Your task to perform on an android device: make emails show in primary in the gmail app Image 0: 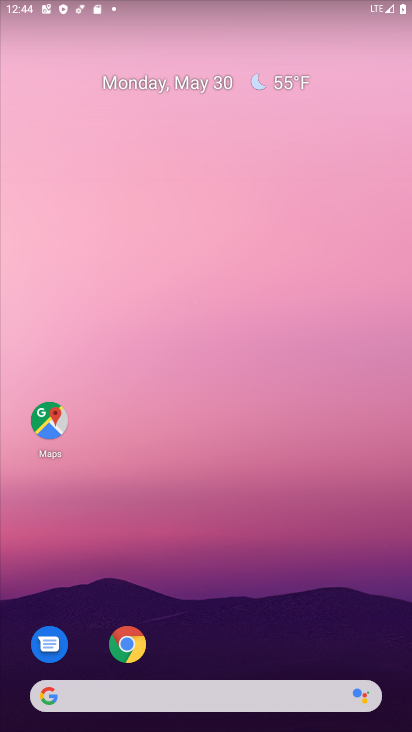
Step 0: drag from (270, 621) to (241, 188)
Your task to perform on an android device: make emails show in primary in the gmail app Image 1: 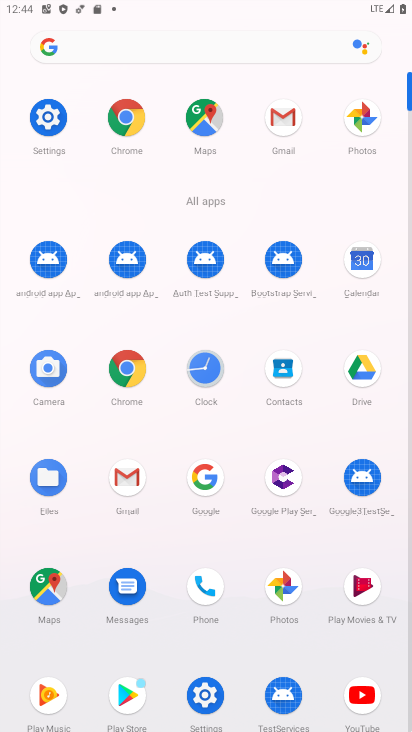
Step 1: click (287, 138)
Your task to perform on an android device: make emails show in primary in the gmail app Image 2: 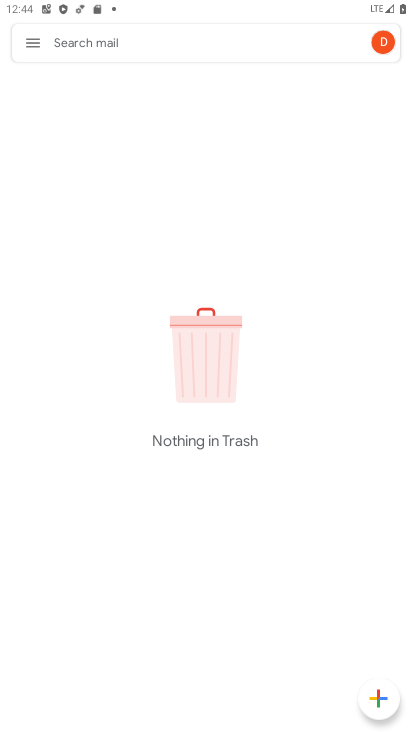
Step 2: click (35, 43)
Your task to perform on an android device: make emails show in primary in the gmail app Image 3: 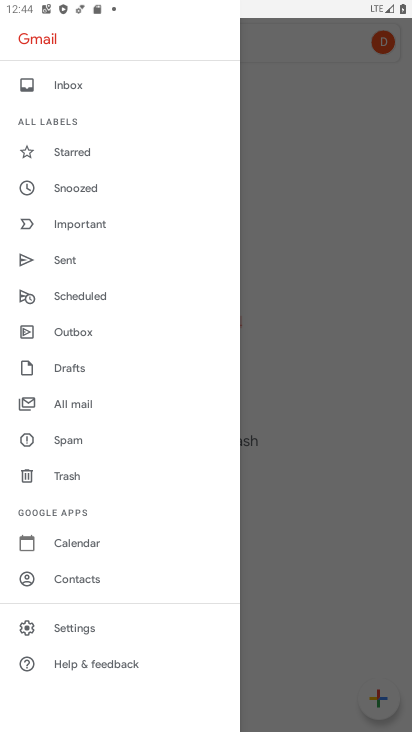
Step 3: click (52, 72)
Your task to perform on an android device: make emails show in primary in the gmail app Image 4: 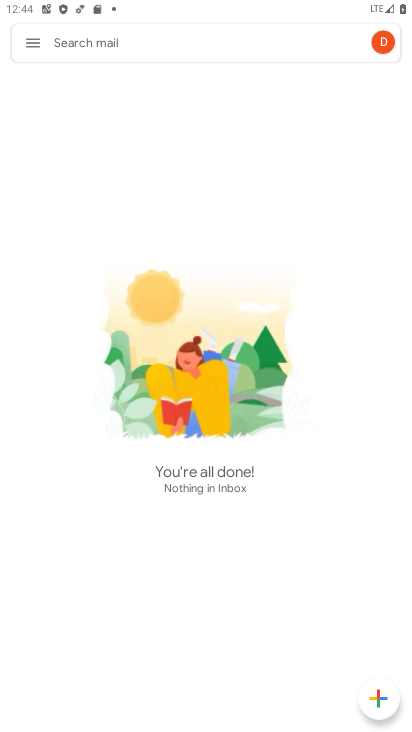
Step 4: task complete